Your task to perform on an android device: Go to sound settings Image 0: 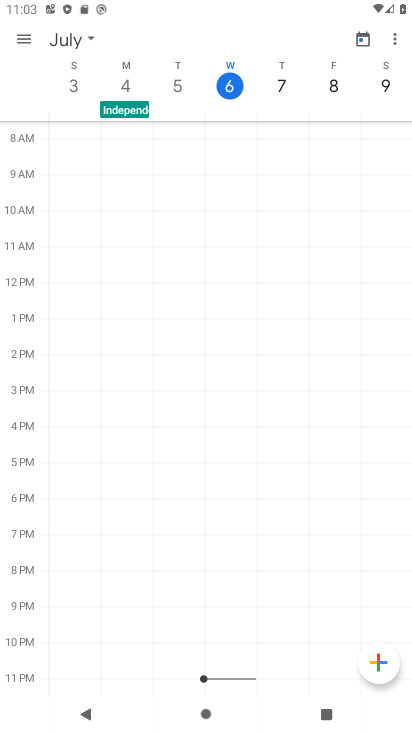
Step 0: press home button
Your task to perform on an android device: Go to sound settings Image 1: 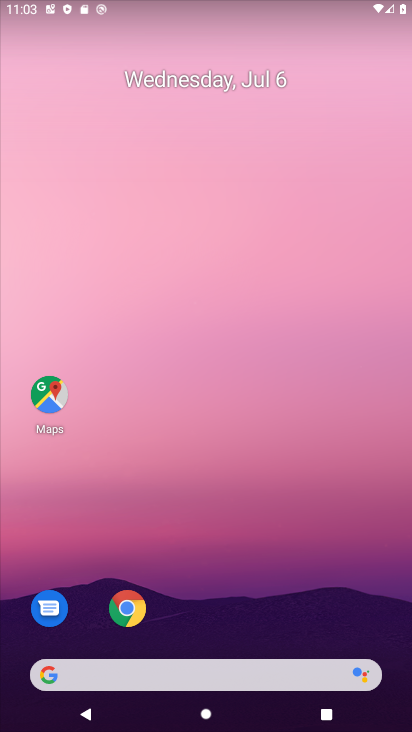
Step 1: drag from (229, 621) to (152, 43)
Your task to perform on an android device: Go to sound settings Image 2: 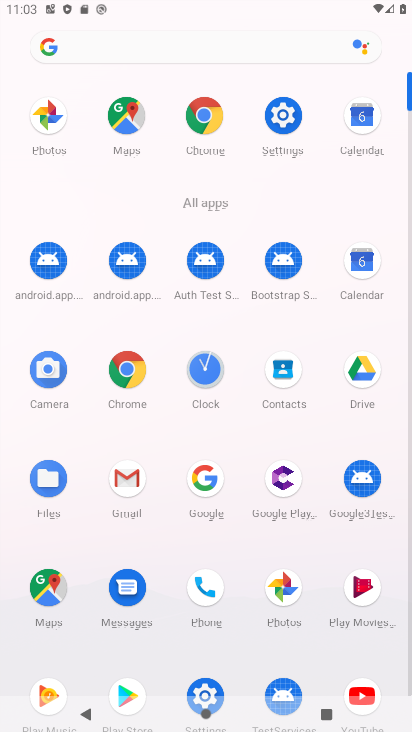
Step 2: click (280, 119)
Your task to perform on an android device: Go to sound settings Image 3: 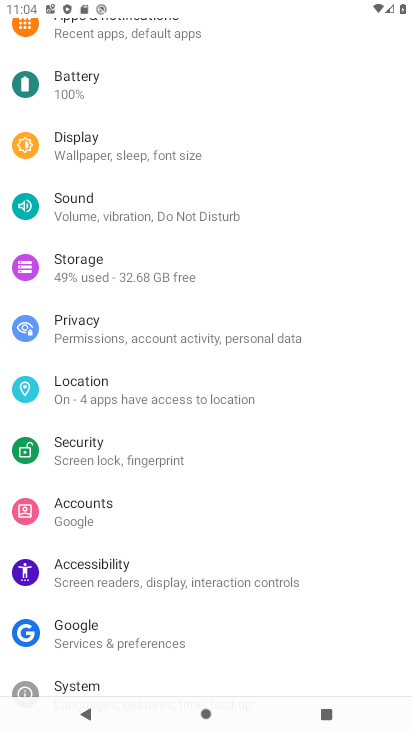
Step 3: click (108, 204)
Your task to perform on an android device: Go to sound settings Image 4: 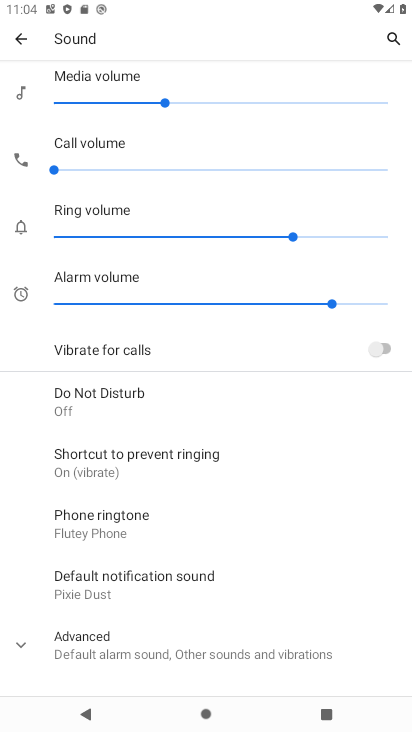
Step 4: task complete